Your task to perform on an android device: Open notification settings Image 0: 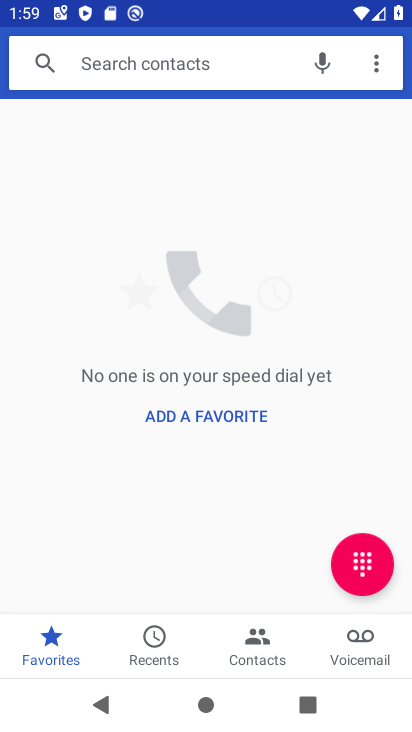
Step 0: press home button
Your task to perform on an android device: Open notification settings Image 1: 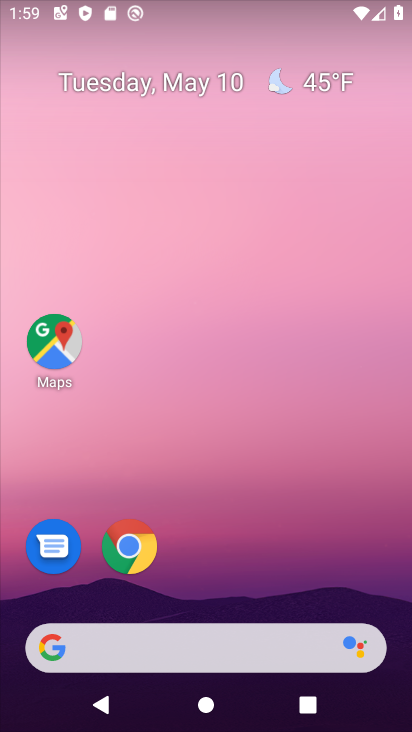
Step 1: drag from (322, 569) to (288, 131)
Your task to perform on an android device: Open notification settings Image 2: 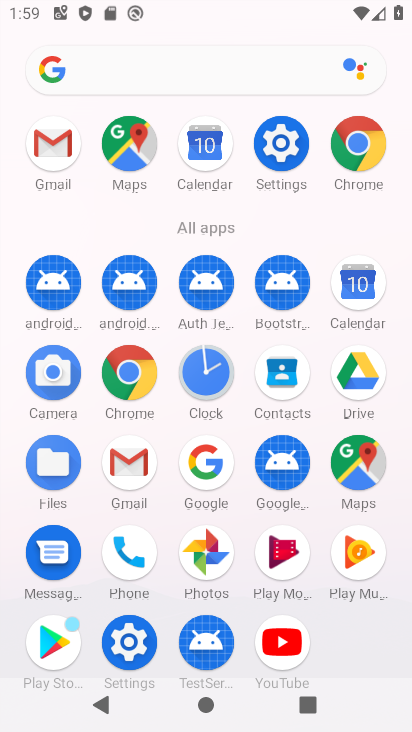
Step 2: click (279, 160)
Your task to perform on an android device: Open notification settings Image 3: 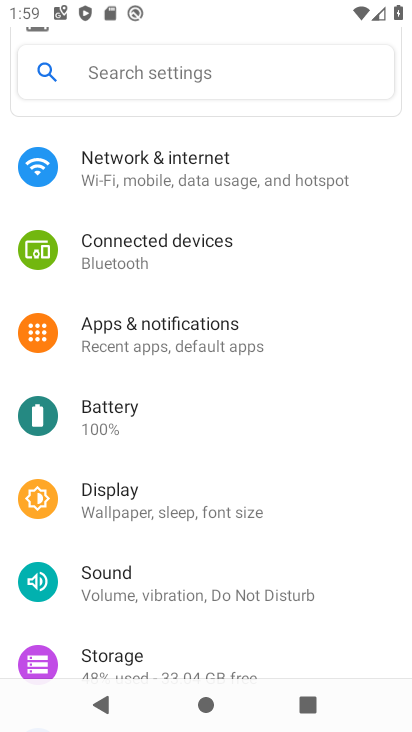
Step 3: click (204, 333)
Your task to perform on an android device: Open notification settings Image 4: 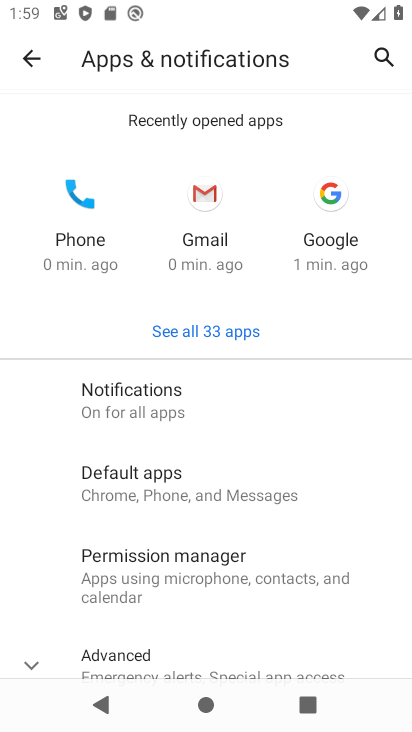
Step 4: click (158, 405)
Your task to perform on an android device: Open notification settings Image 5: 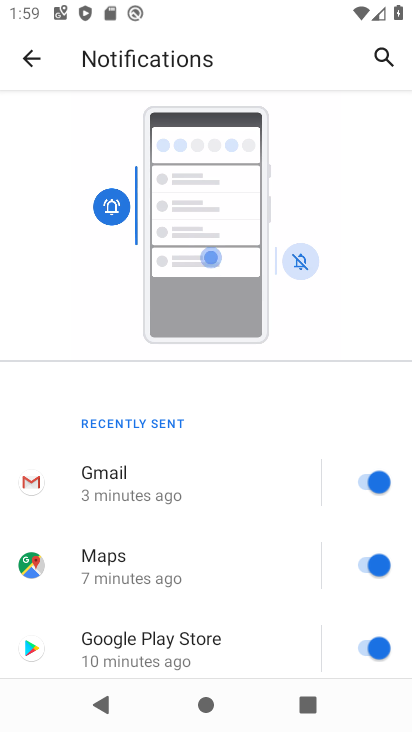
Step 5: task complete